Your task to perform on an android device: move an email to a new category in the gmail app Image 0: 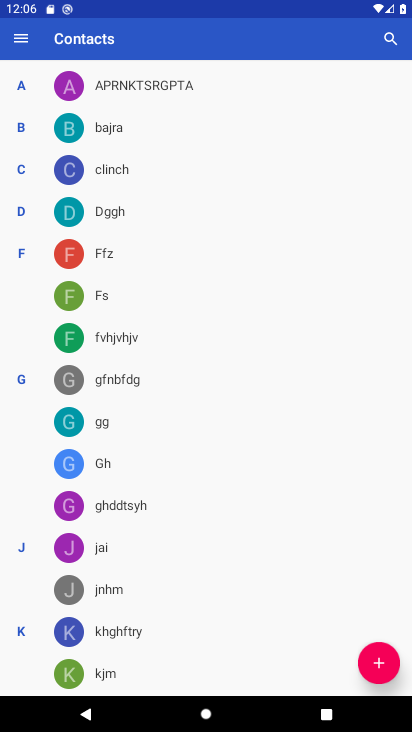
Step 0: press home button
Your task to perform on an android device: move an email to a new category in the gmail app Image 1: 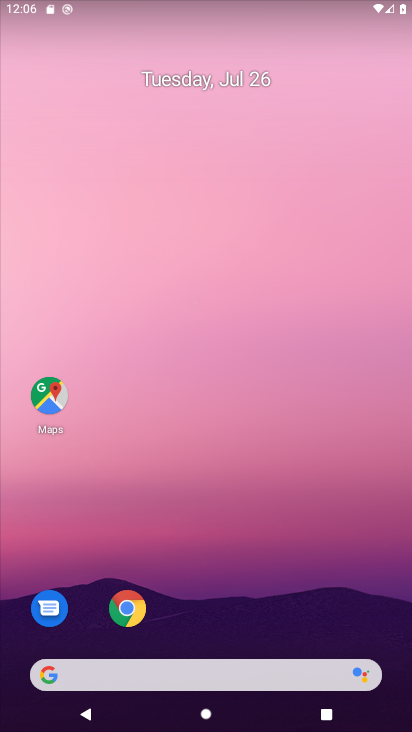
Step 1: drag from (196, 599) to (154, 3)
Your task to perform on an android device: move an email to a new category in the gmail app Image 2: 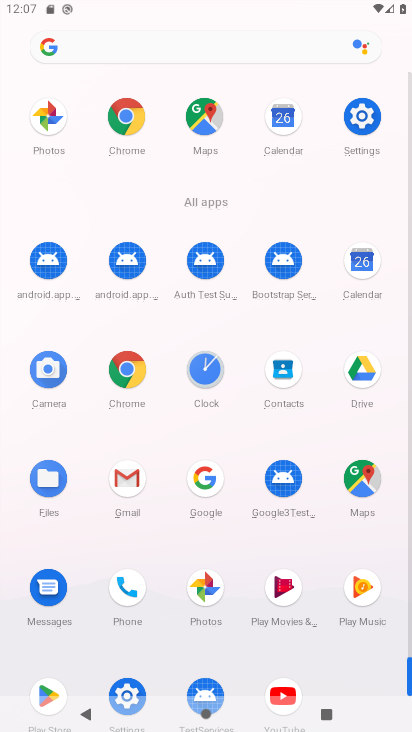
Step 2: click (136, 490)
Your task to perform on an android device: move an email to a new category in the gmail app Image 3: 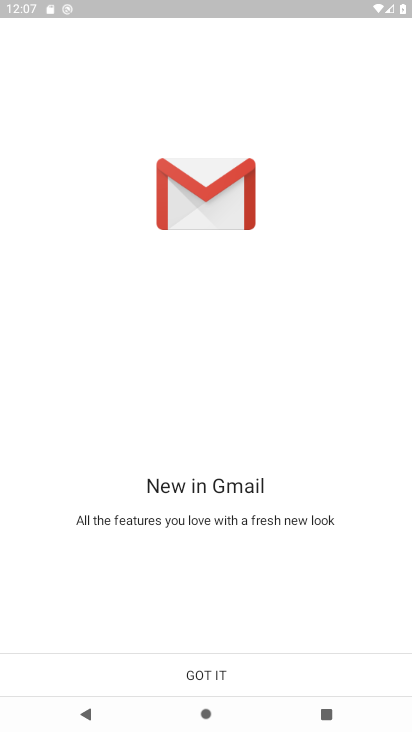
Step 3: click (201, 675)
Your task to perform on an android device: move an email to a new category in the gmail app Image 4: 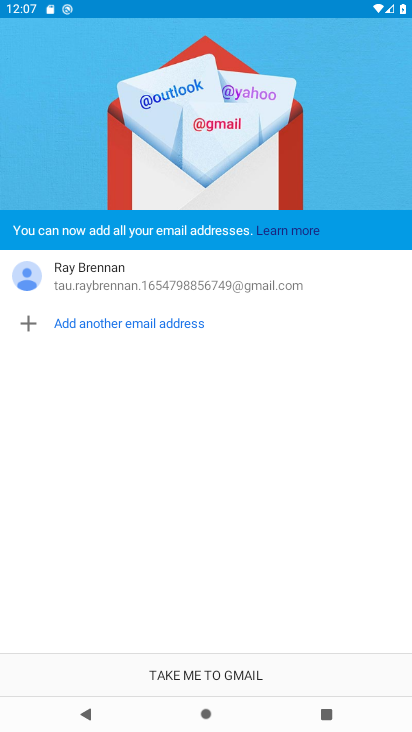
Step 4: click (204, 672)
Your task to perform on an android device: move an email to a new category in the gmail app Image 5: 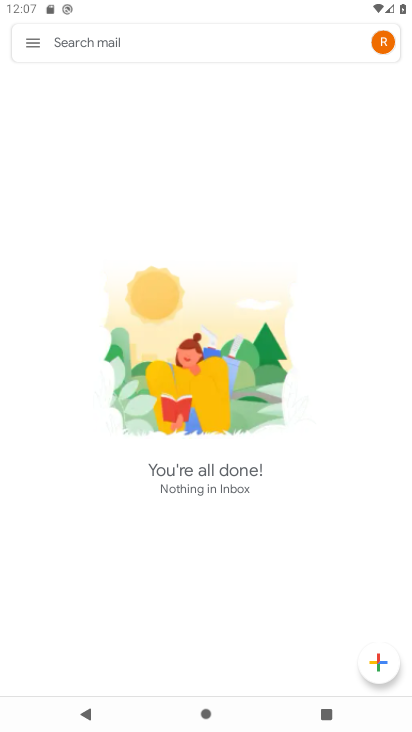
Step 5: click (36, 43)
Your task to perform on an android device: move an email to a new category in the gmail app Image 6: 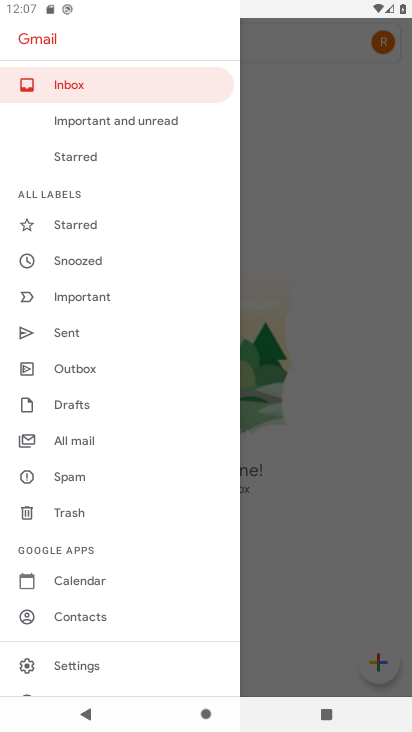
Step 6: click (345, 261)
Your task to perform on an android device: move an email to a new category in the gmail app Image 7: 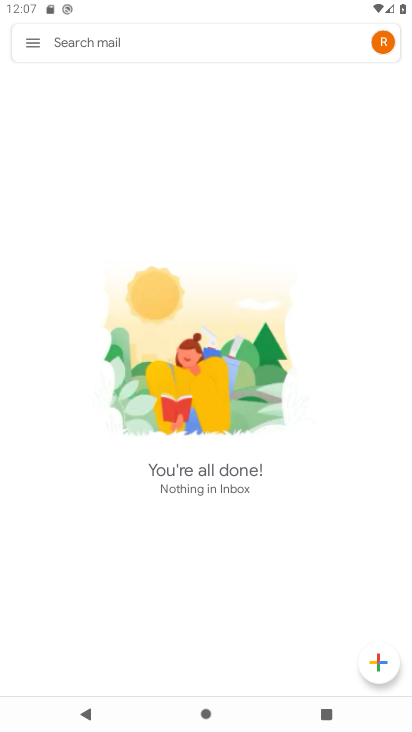
Step 7: task complete